Your task to perform on an android device: toggle wifi Image 0: 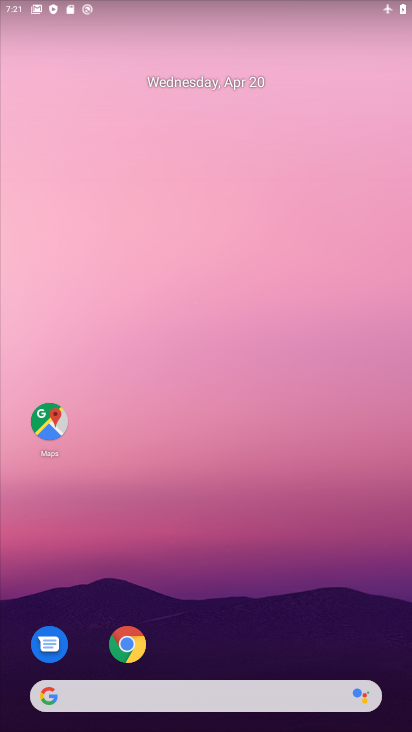
Step 0: drag from (335, 622) to (278, 91)
Your task to perform on an android device: toggle wifi Image 1: 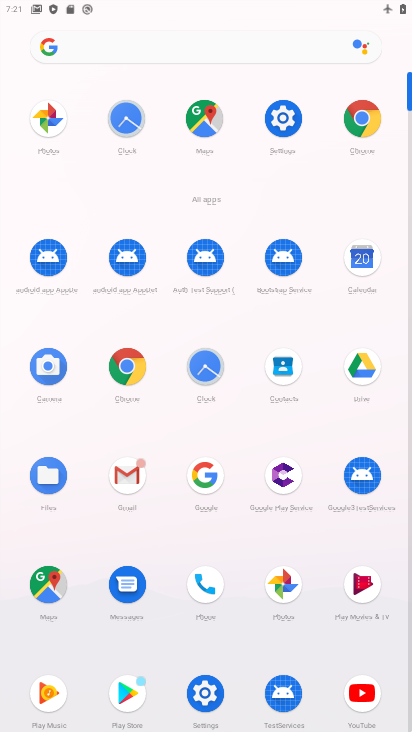
Step 1: drag from (236, 1) to (264, 479)
Your task to perform on an android device: toggle wifi Image 2: 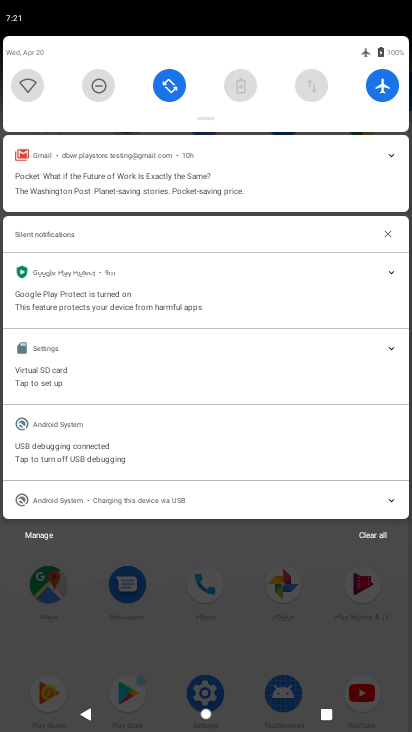
Step 2: drag from (198, 97) to (158, 495)
Your task to perform on an android device: toggle wifi Image 3: 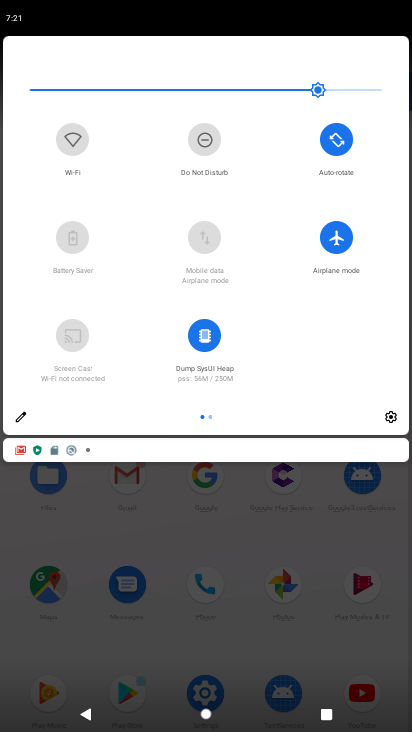
Step 3: click (70, 146)
Your task to perform on an android device: toggle wifi Image 4: 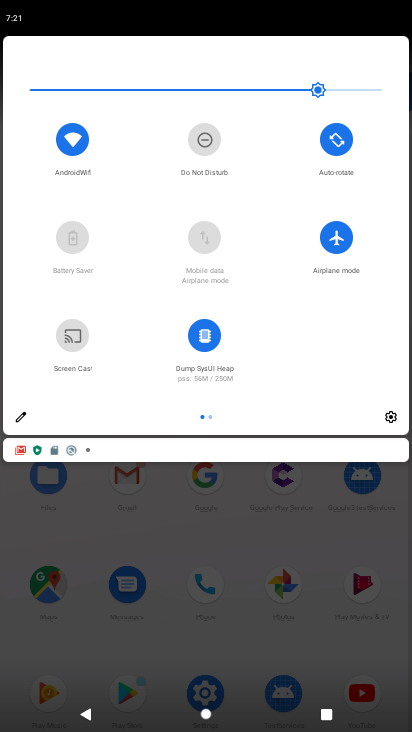
Step 4: task complete